Your task to perform on an android device: Search for Italian restaurants on Maps Image 0: 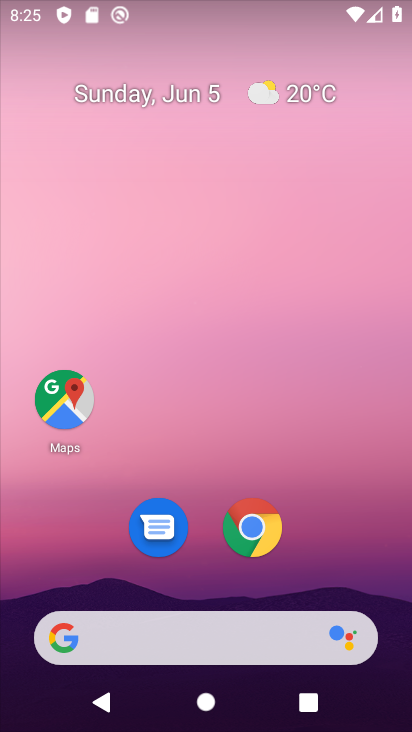
Step 0: drag from (355, 533) to (310, 688)
Your task to perform on an android device: Search for Italian restaurants on Maps Image 1: 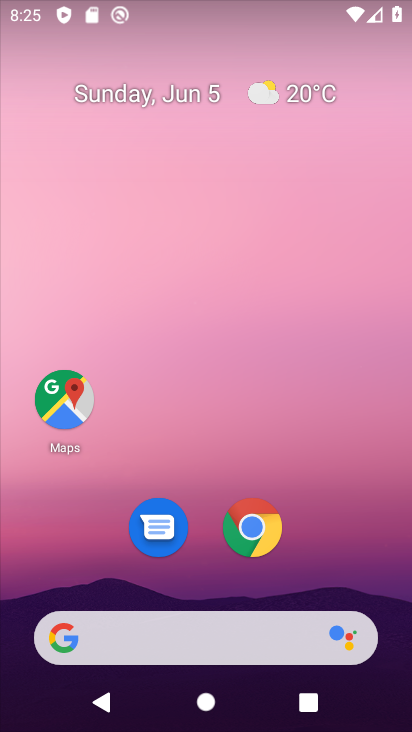
Step 1: drag from (362, 542) to (300, 23)
Your task to perform on an android device: Search for Italian restaurants on Maps Image 2: 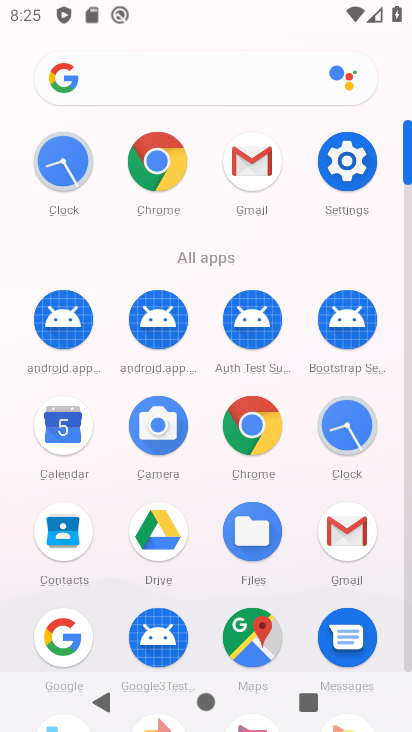
Step 2: click (262, 631)
Your task to perform on an android device: Search for Italian restaurants on Maps Image 3: 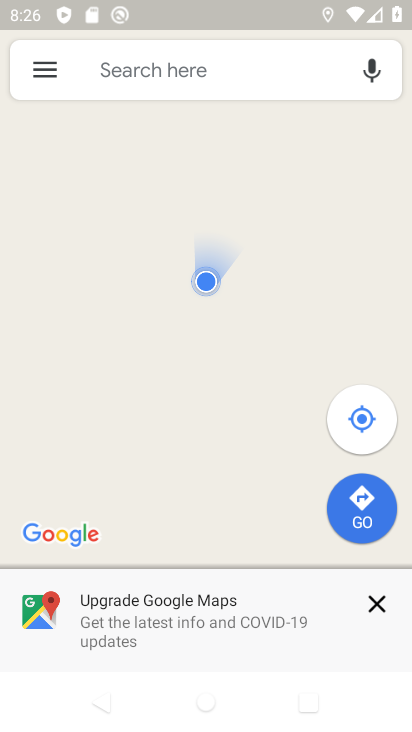
Step 3: click (238, 84)
Your task to perform on an android device: Search for Italian restaurants on Maps Image 4: 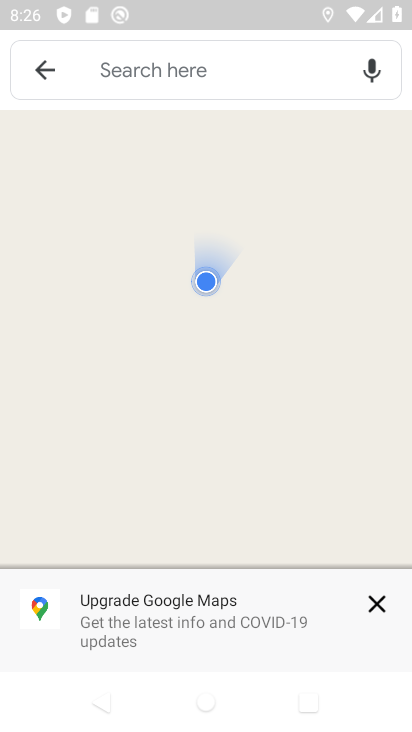
Step 4: click (195, 61)
Your task to perform on an android device: Search for Italian restaurants on Maps Image 5: 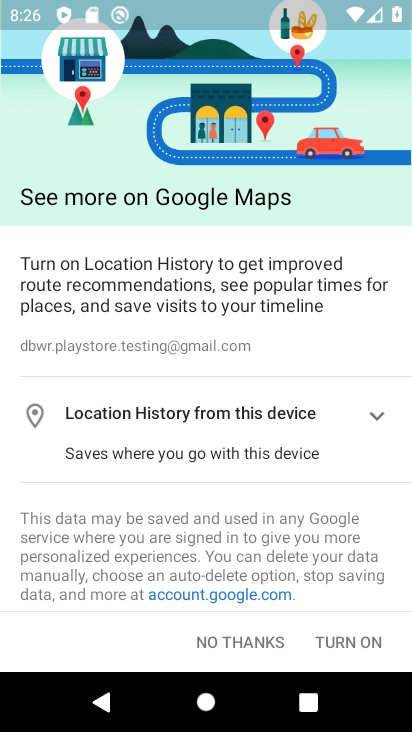
Step 5: press back button
Your task to perform on an android device: Search for Italian restaurants on Maps Image 6: 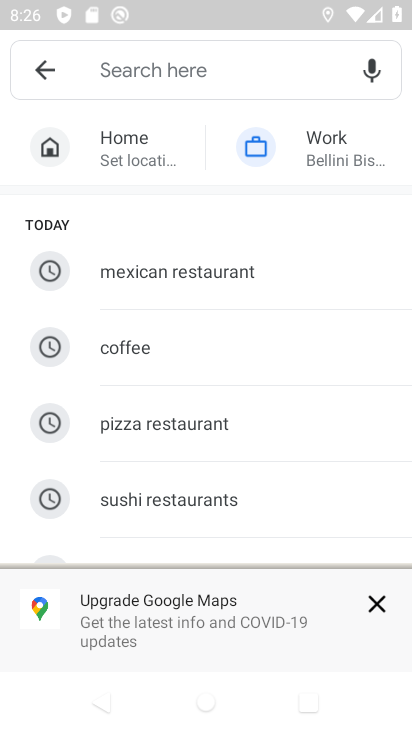
Step 6: drag from (204, 514) to (265, 124)
Your task to perform on an android device: Search for Italian restaurants on Maps Image 7: 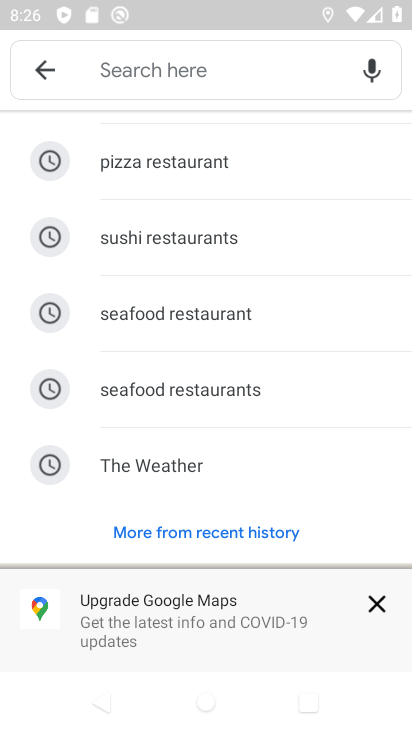
Step 7: click (171, 529)
Your task to perform on an android device: Search for Italian restaurants on Maps Image 8: 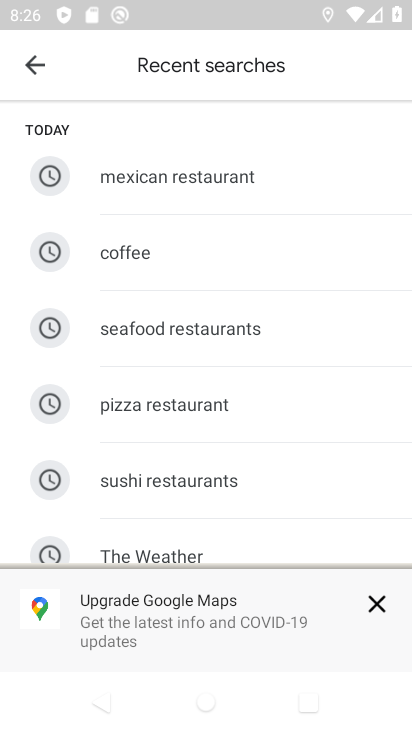
Step 8: drag from (171, 527) to (254, 141)
Your task to perform on an android device: Search for Italian restaurants on Maps Image 9: 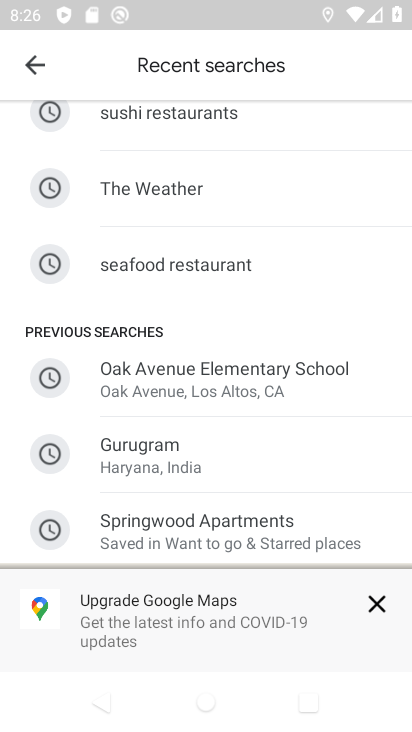
Step 9: drag from (217, 482) to (267, 87)
Your task to perform on an android device: Search for Italian restaurants on Maps Image 10: 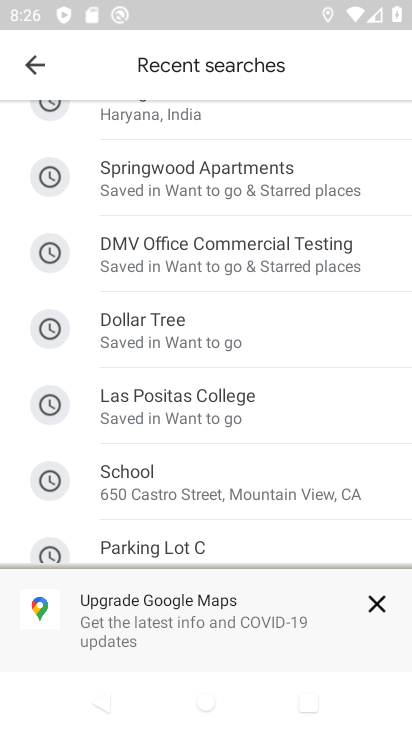
Step 10: drag from (267, 87) to (263, 514)
Your task to perform on an android device: Search for Italian restaurants on Maps Image 11: 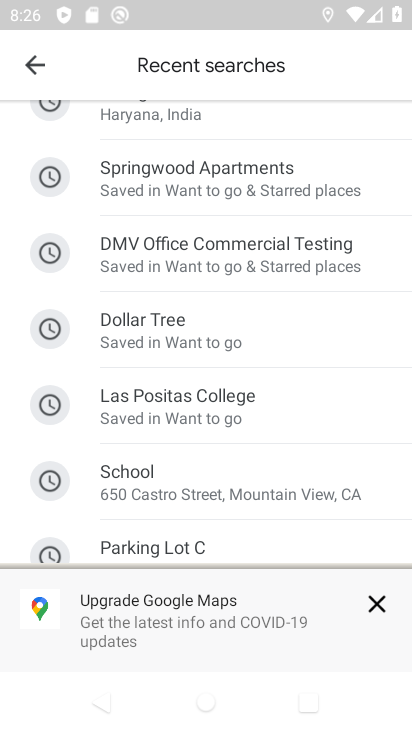
Step 11: drag from (300, 202) to (339, 606)
Your task to perform on an android device: Search for Italian restaurants on Maps Image 12: 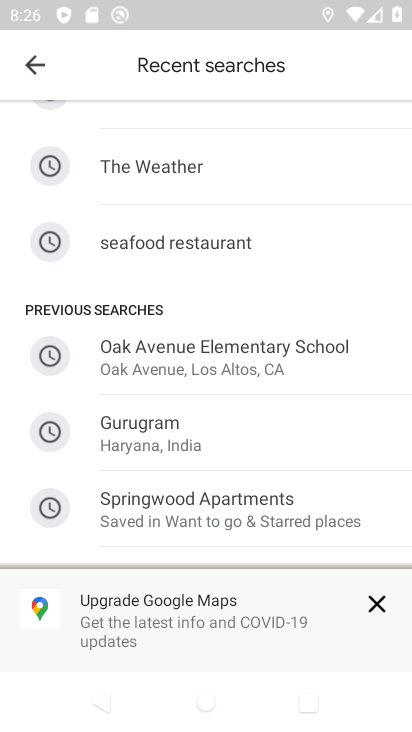
Step 12: drag from (273, 214) to (293, 545)
Your task to perform on an android device: Search for Italian restaurants on Maps Image 13: 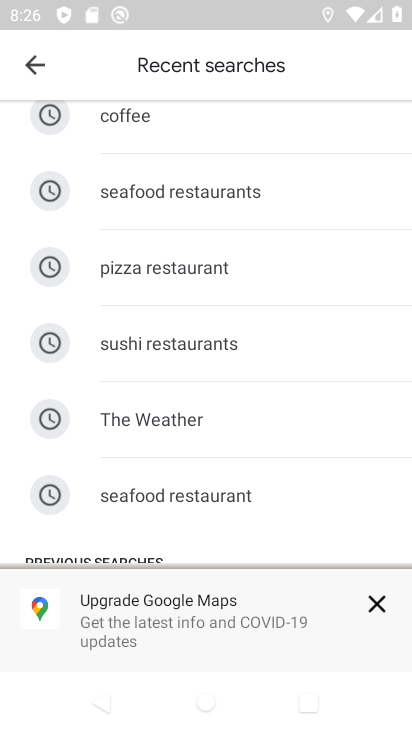
Step 13: drag from (241, 137) to (170, 531)
Your task to perform on an android device: Search for Italian restaurants on Maps Image 14: 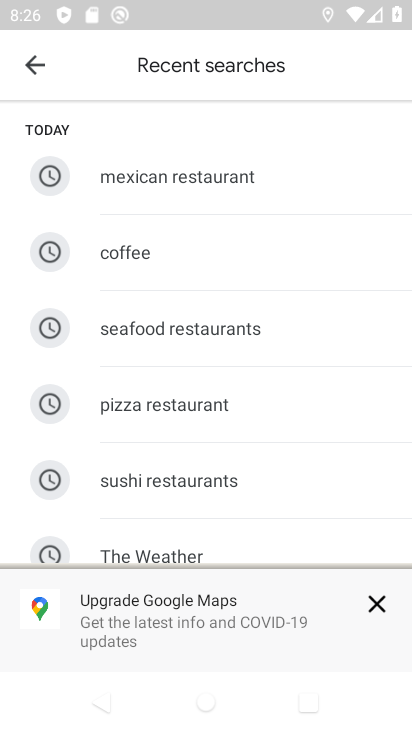
Step 14: drag from (191, 114) to (198, 493)
Your task to perform on an android device: Search for Italian restaurants on Maps Image 15: 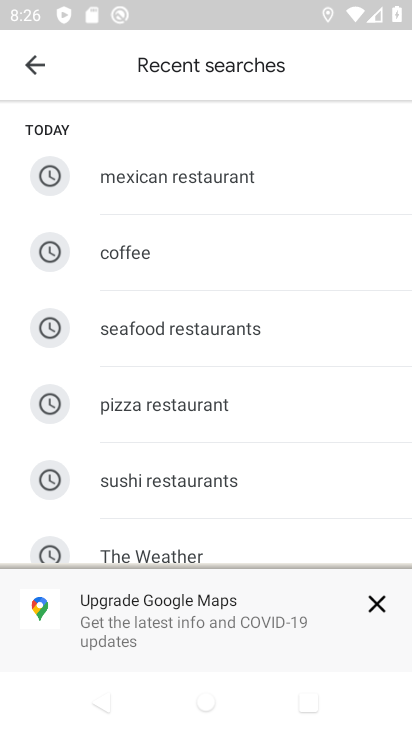
Step 15: drag from (180, 108) to (205, 472)
Your task to perform on an android device: Search for Italian restaurants on Maps Image 16: 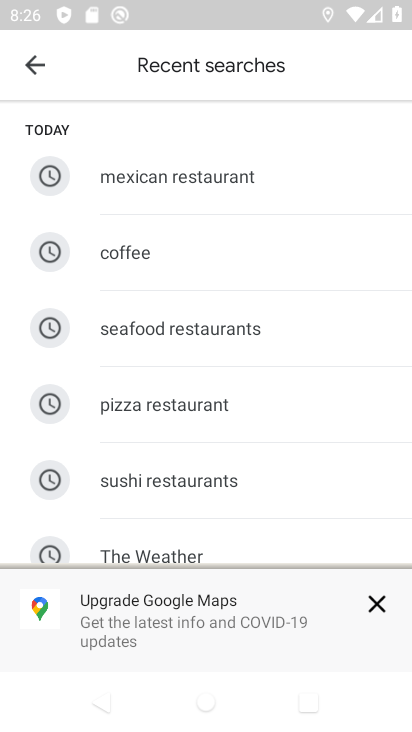
Step 16: click (39, 55)
Your task to perform on an android device: Search for Italian restaurants on Maps Image 17: 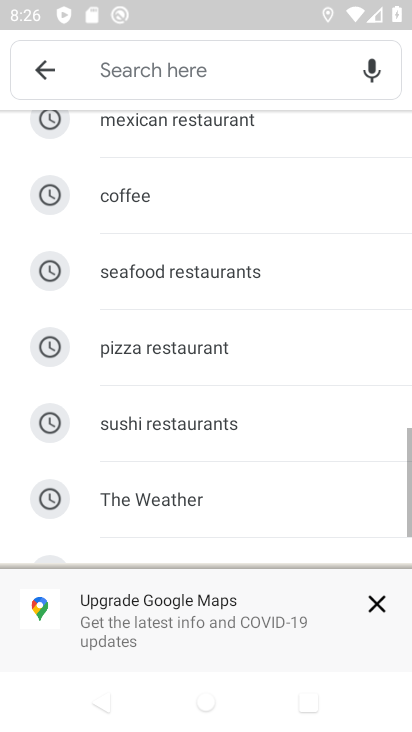
Step 17: click (222, 87)
Your task to perform on an android device: Search for Italian restaurants on Maps Image 18: 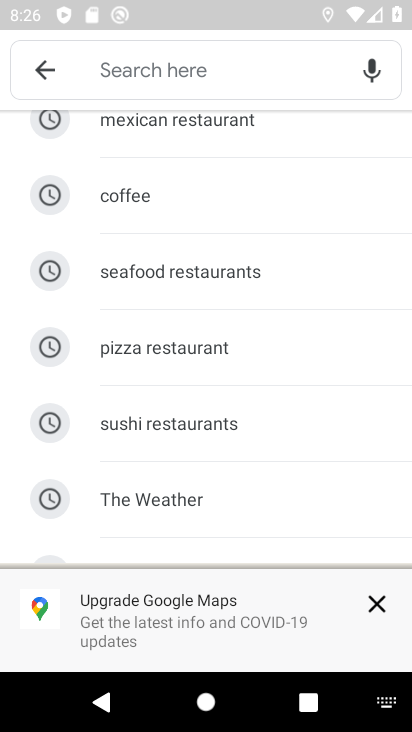
Step 18: type "italian resturents"
Your task to perform on an android device: Search for Italian restaurants on Maps Image 19: 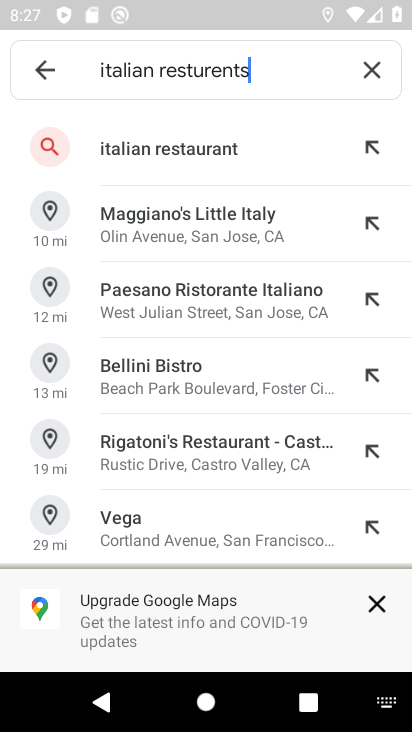
Step 19: click (201, 149)
Your task to perform on an android device: Search for Italian restaurants on Maps Image 20: 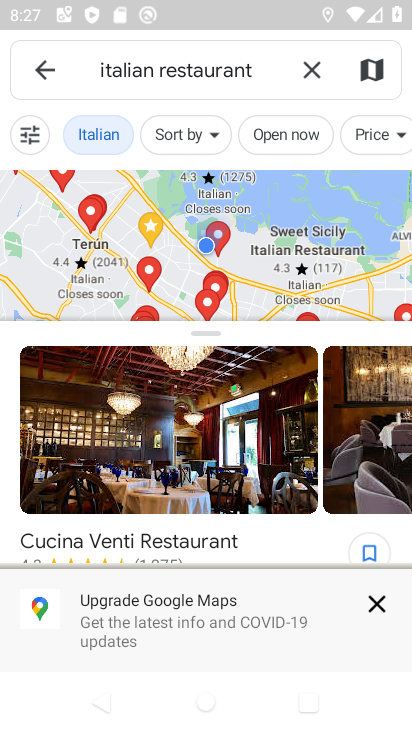
Step 20: task complete